Your task to perform on an android device: Go to Google maps Image 0: 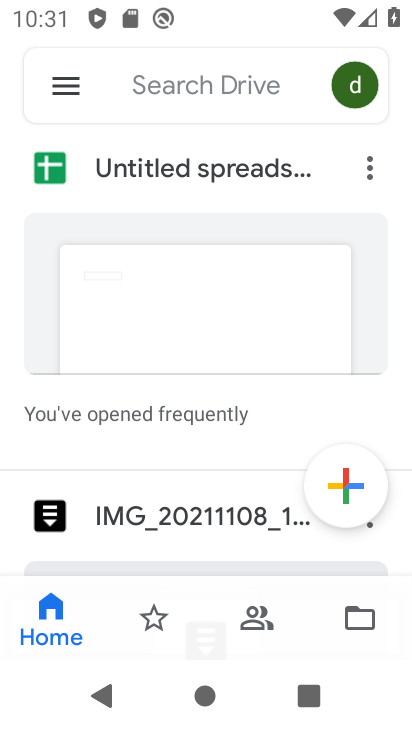
Step 0: press home button
Your task to perform on an android device: Go to Google maps Image 1: 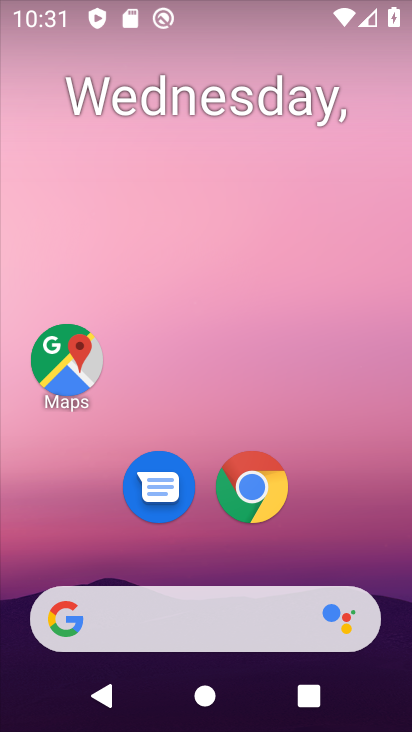
Step 1: click (57, 365)
Your task to perform on an android device: Go to Google maps Image 2: 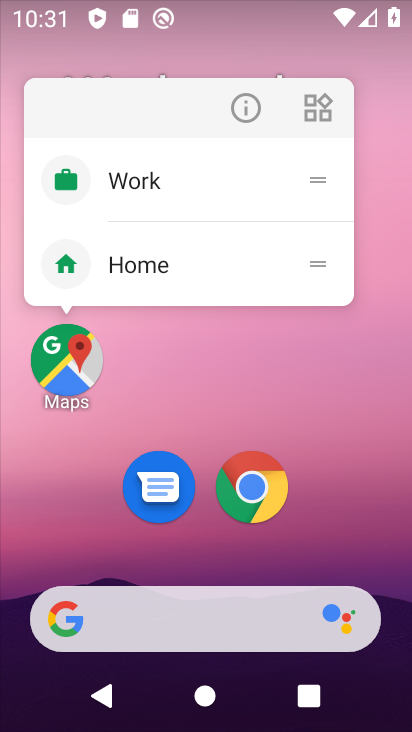
Step 2: click (68, 358)
Your task to perform on an android device: Go to Google maps Image 3: 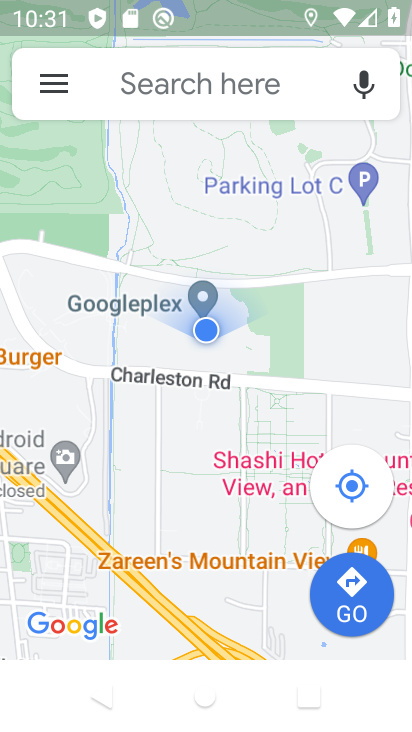
Step 3: task complete